Your task to perform on an android device: Go to battery settings Image 0: 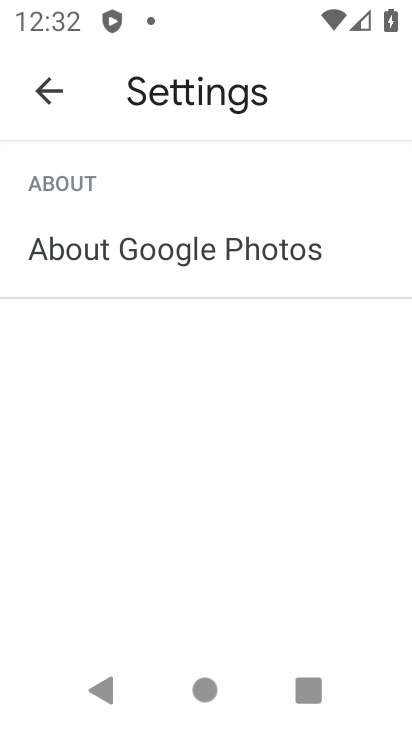
Step 0: click (53, 76)
Your task to perform on an android device: Go to battery settings Image 1: 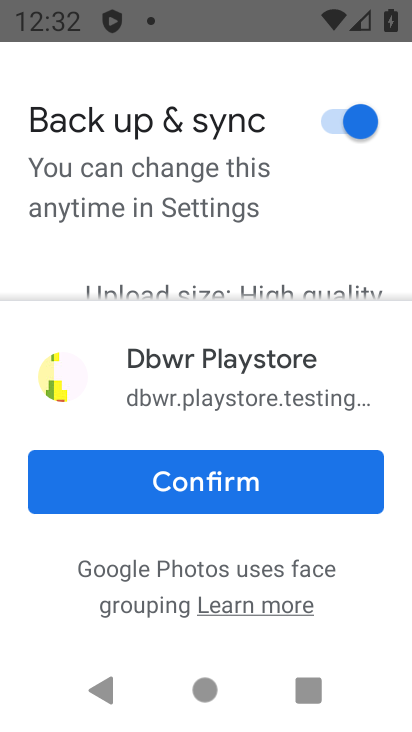
Step 1: press home button
Your task to perform on an android device: Go to battery settings Image 2: 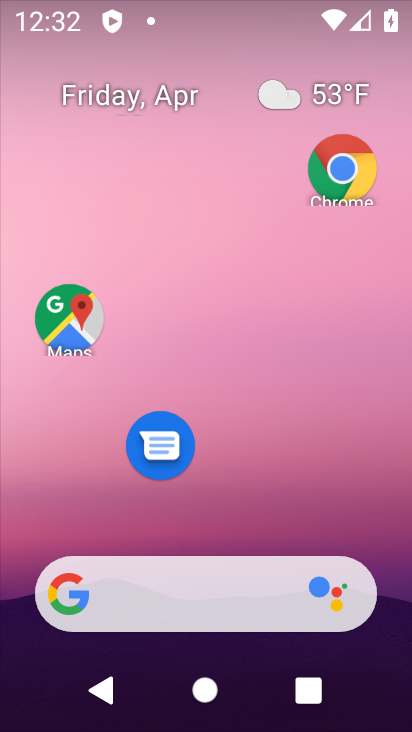
Step 2: drag from (239, 498) to (215, 117)
Your task to perform on an android device: Go to battery settings Image 3: 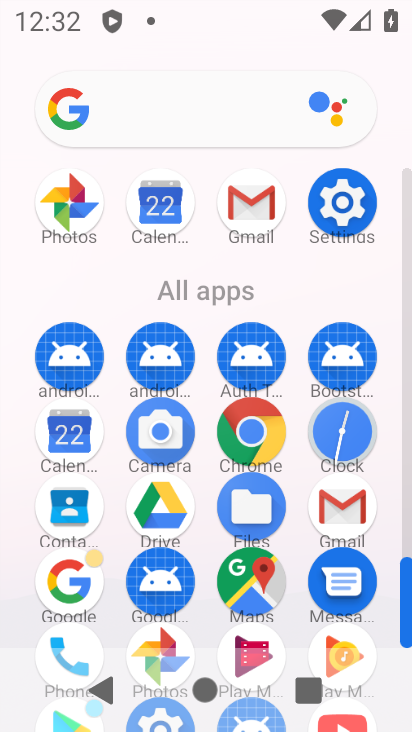
Step 3: click (319, 199)
Your task to perform on an android device: Go to battery settings Image 4: 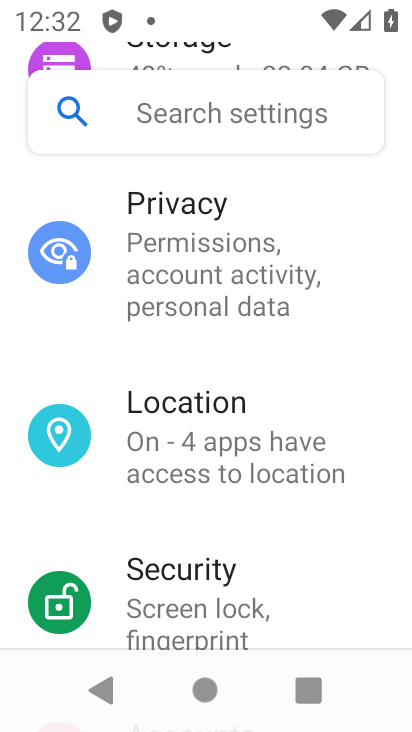
Step 4: click (258, 334)
Your task to perform on an android device: Go to battery settings Image 5: 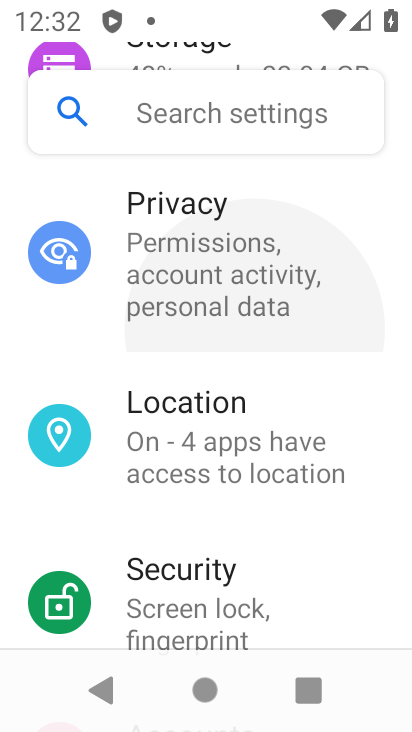
Step 5: drag from (258, 334) to (242, 581)
Your task to perform on an android device: Go to battery settings Image 6: 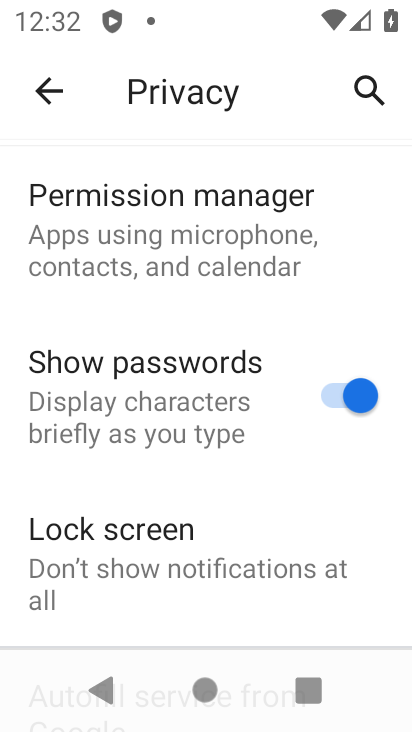
Step 6: press back button
Your task to perform on an android device: Go to battery settings Image 7: 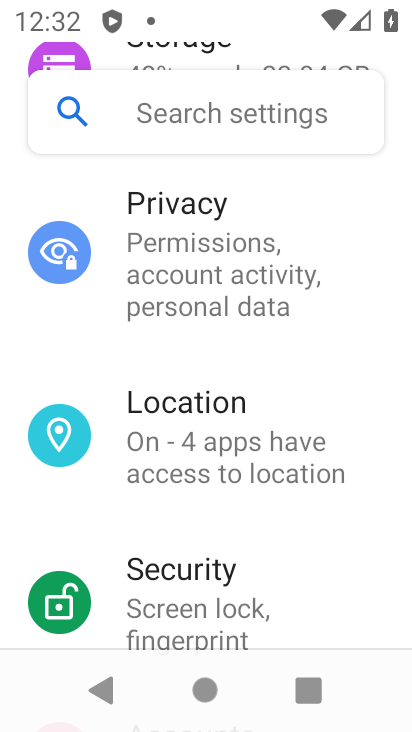
Step 7: drag from (305, 370) to (233, 552)
Your task to perform on an android device: Go to battery settings Image 8: 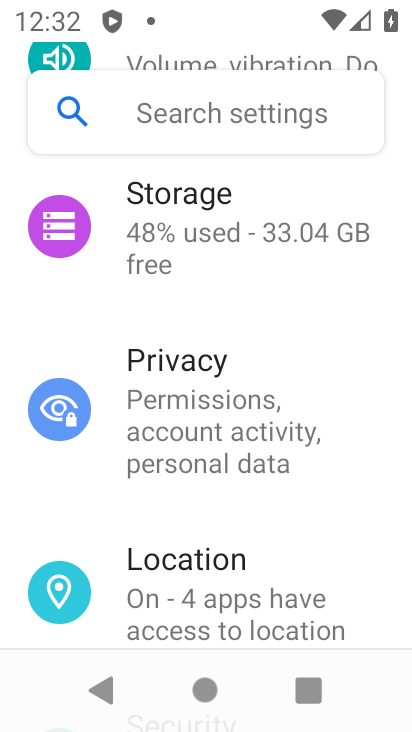
Step 8: drag from (230, 330) to (124, 701)
Your task to perform on an android device: Go to battery settings Image 9: 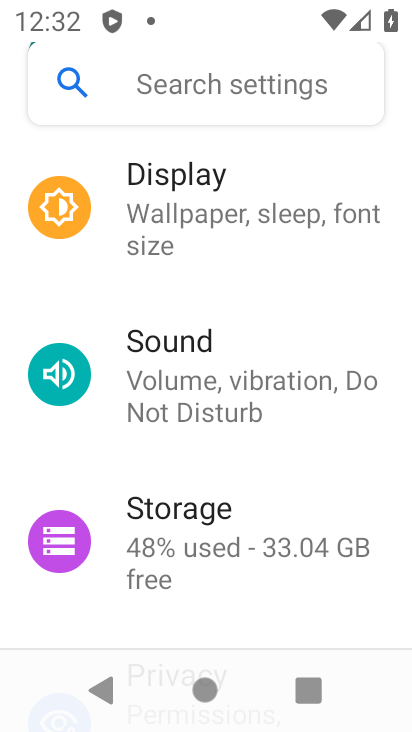
Step 9: drag from (122, 642) to (62, 712)
Your task to perform on an android device: Go to battery settings Image 10: 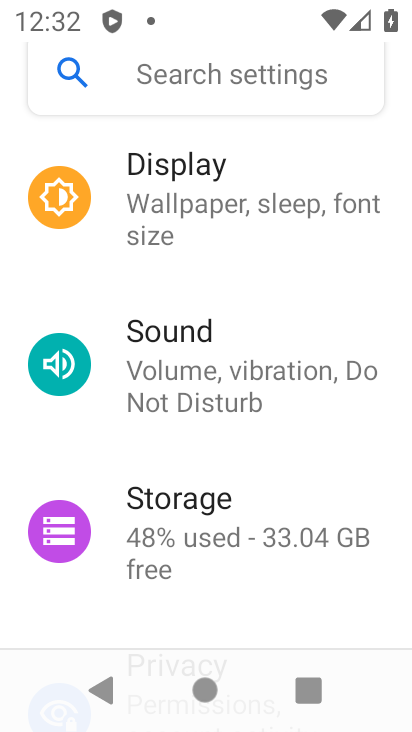
Step 10: drag from (250, 191) to (237, 378)
Your task to perform on an android device: Go to battery settings Image 11: 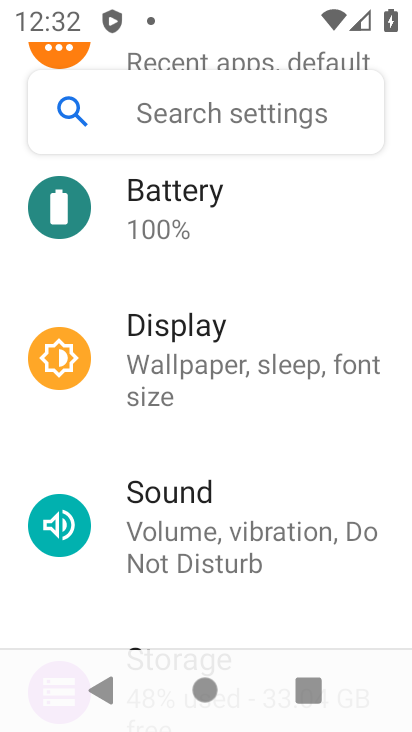
Step 11: click (237, 378)
Your task to perform on an android device: Go to battery settings Image 12: 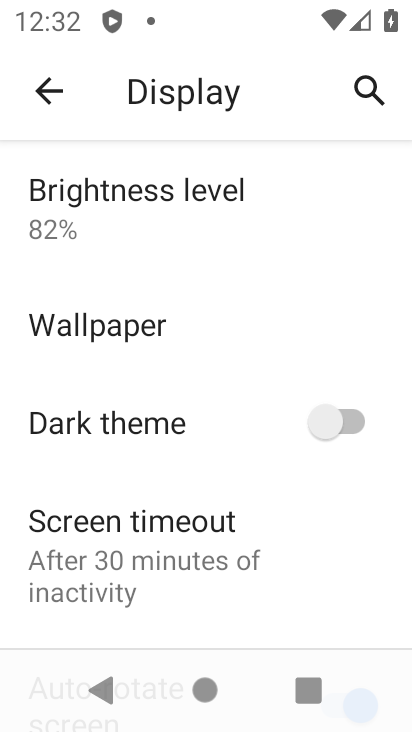
Step 12: click (60, 105)
Your task to perform on an android device: Go to battery settings Image 13: 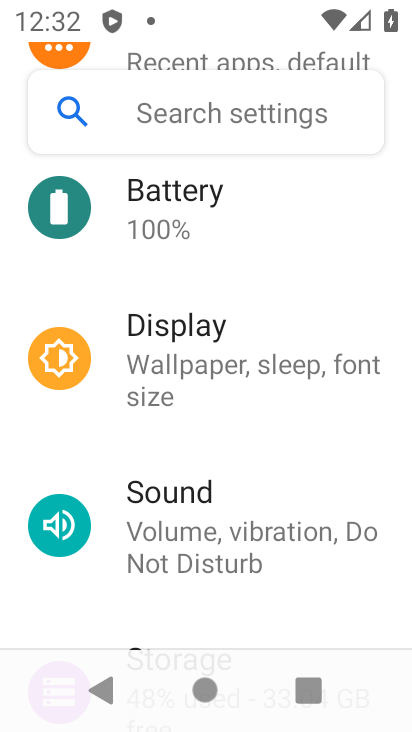
Step 13: drag from (163, 422) to (151, 454)
Your task to perform on an android device: Go to battery settings Image 14: 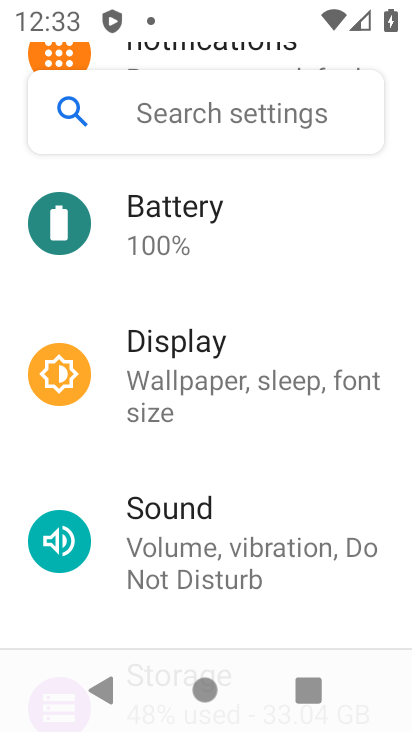
Step 14: click (129, 265)
Your task to perform on an android device: Go to battery settings Image 15: 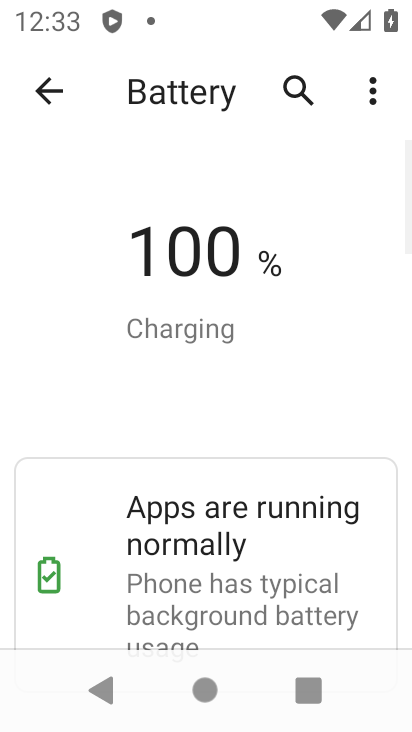
Step 15: task complete